Your task to perform on an android device: turn on priority inbox in the gmail app Image 0: 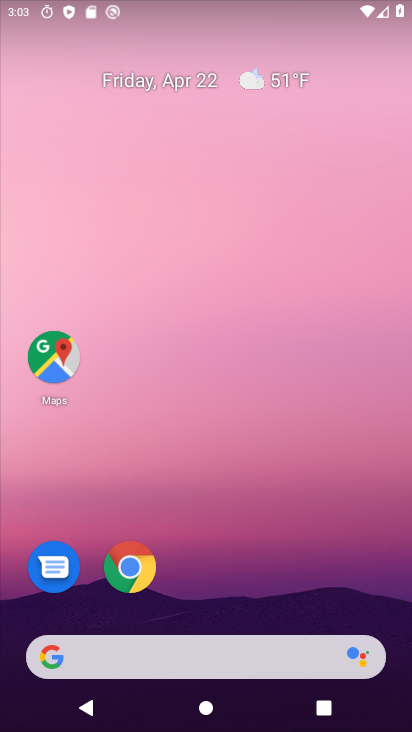
Step 0: drag from (229, 529) to (213, 58)
Your task to perform on an android device: turn on priority inbox in the gmail app Image 1: 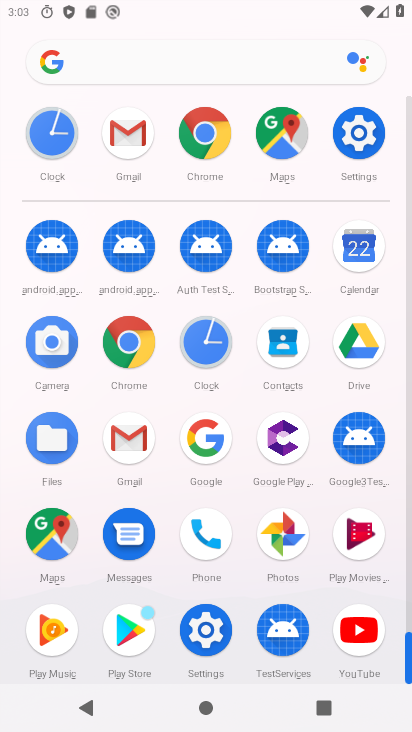
Step 1: click (122, 440)
Your task to perform on an android device: turn on priority inbox in the gmail app Image 2: 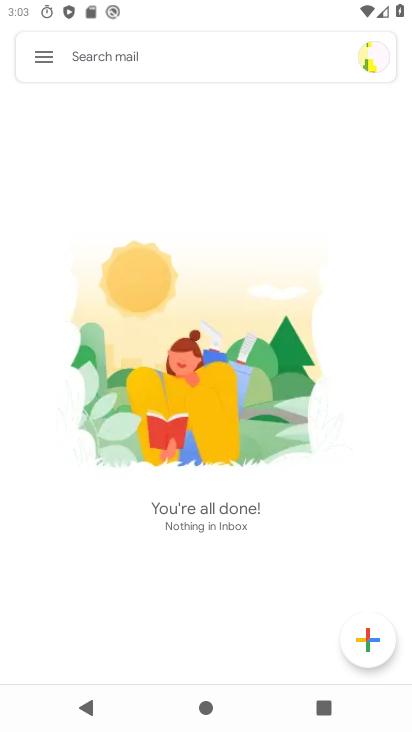
Step 2: click (42, 53)
Your task to perform on an android device: turn on priority inbox in the gmail app Image 3: 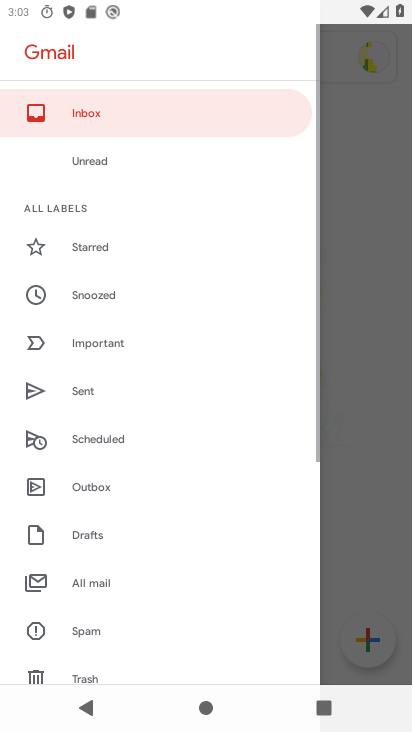
Step 3: drag from (161, 617) to (146, 184)
Your task to perform on an android device: turn on priority inbox in the gmail app Image 4: 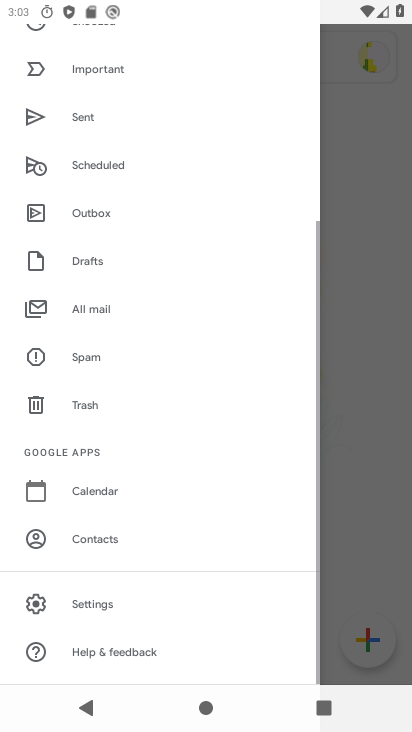
Step 4: click (134, 605)
Your task to perform on an android device: turn on priority inbox in the gmail app Image 5: 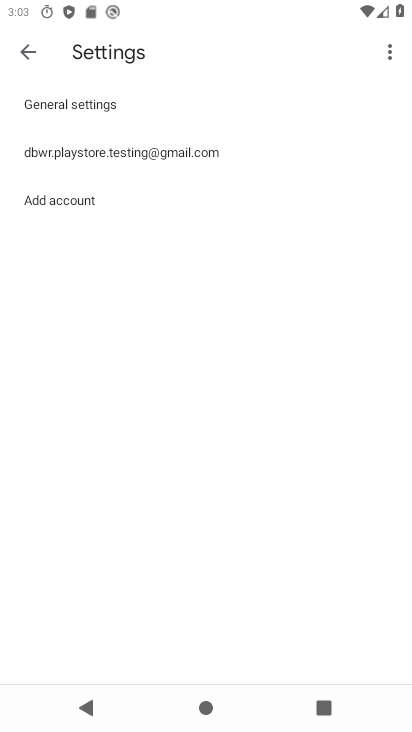
Step 5: click (128, 145)
Your task to perform on an android device: turn on priority inbox in the gmail app Image 6: 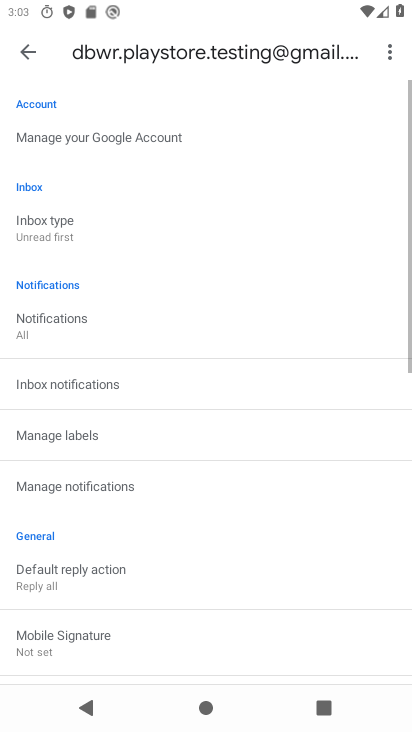
Step 6: click (94, 230)
Your task to perform on an android device: turn on priority inbox in the gmail app Image 7: 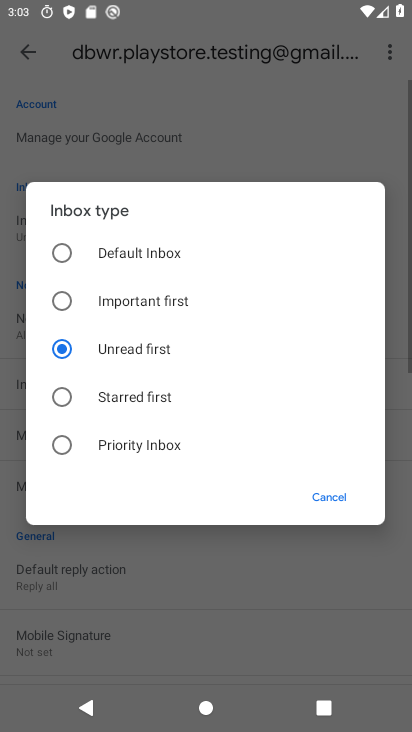
Step 7: click (109, 451)
Your task to perform on an android device: turn on priority inbox in the gmail app Image 8: 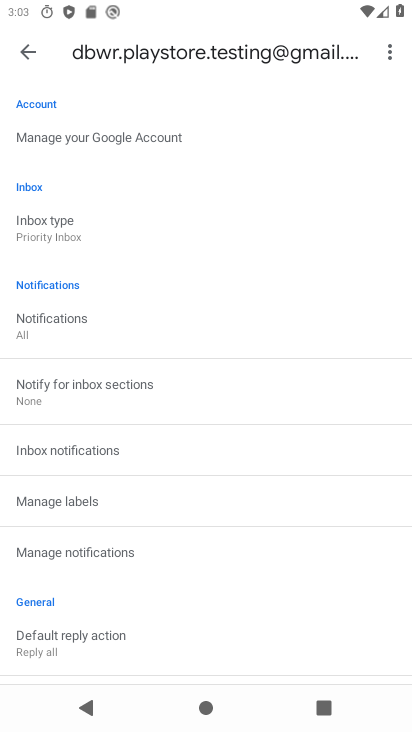
Step 8: task complete